Your task to perform on an android device: add a label to a message in the gmail app Image 0: 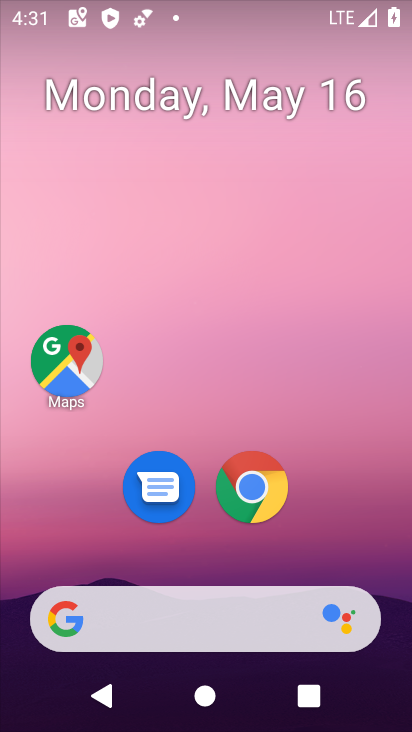
Step 0: drag from (396, 604) to (316, 106)
Your task to perform on an android device: add a label to a message in the gmail app Image 1: 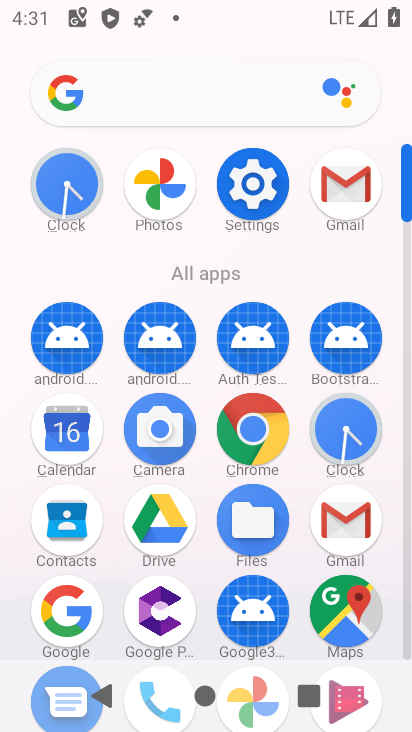
Step 1: click (408, 645)
Your task to perform on an android device: add a label to a message in the gmail app Image 2: 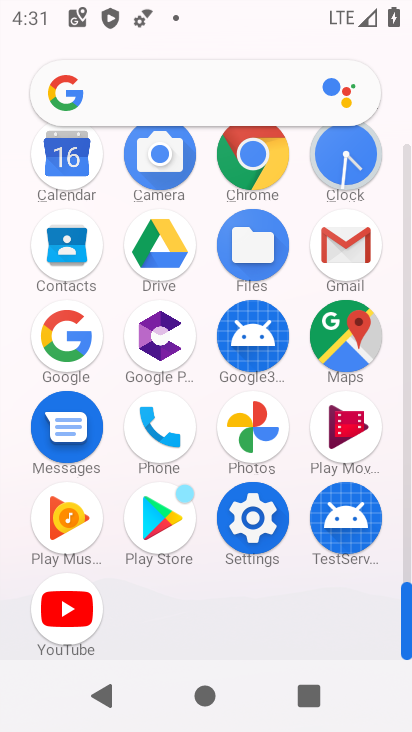
Step 2: click (344, 241)
Your task to perform on an android device: add a label to a message in the gmail app Image 3: 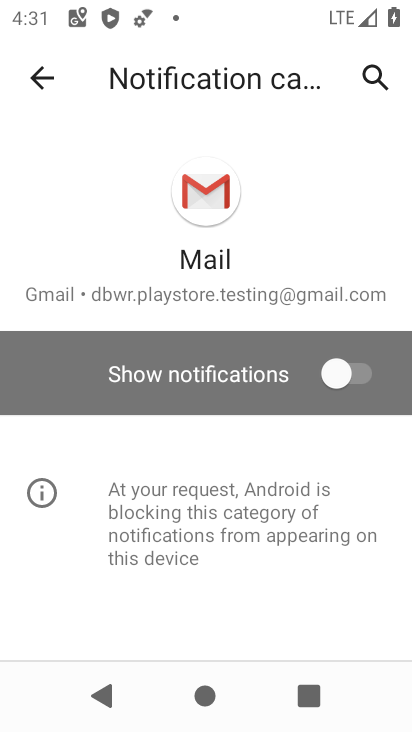
Step 3: press back button
Your task to perform on an android device: add a label to a message in the gmail app Image 4: 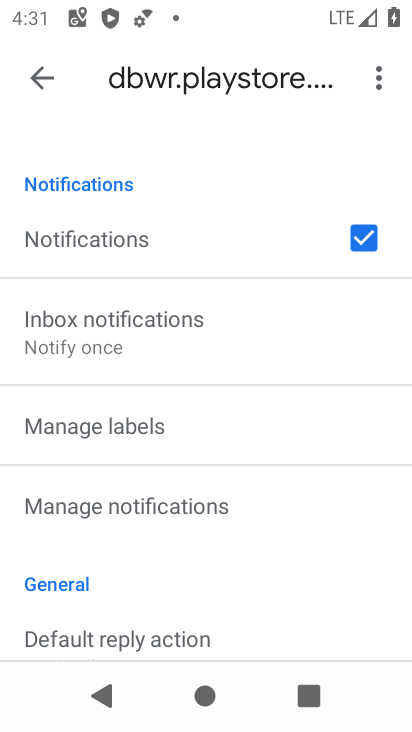
Step 4: press back button
Your task to perform on an android device: add a label to a message in the gmail app Image 5: 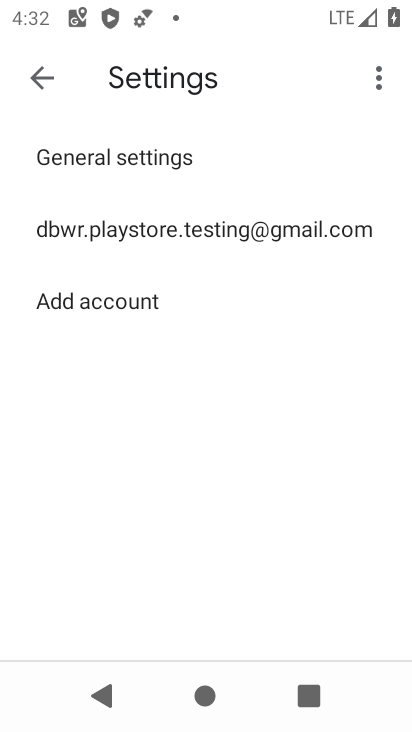
Step 5: press back button
Your task to perform on an android device: add a label to a message in the gmail app Image 6: 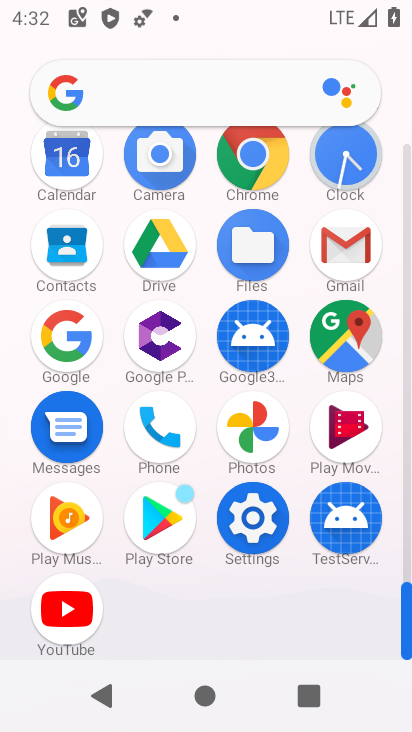
Step 6: click (345, 244)
Your task to perform on an android device: add a label to a message in the gmail app Image 7: 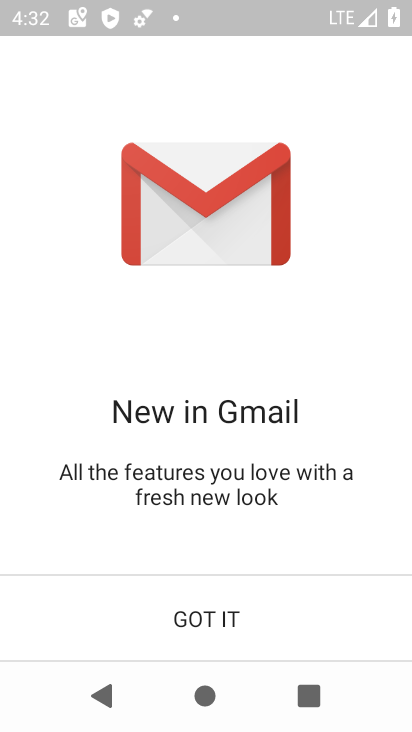
Step 7: click (208, 621)
Your task to perform on an android device: add a label to a message in the gmail app Image 8: 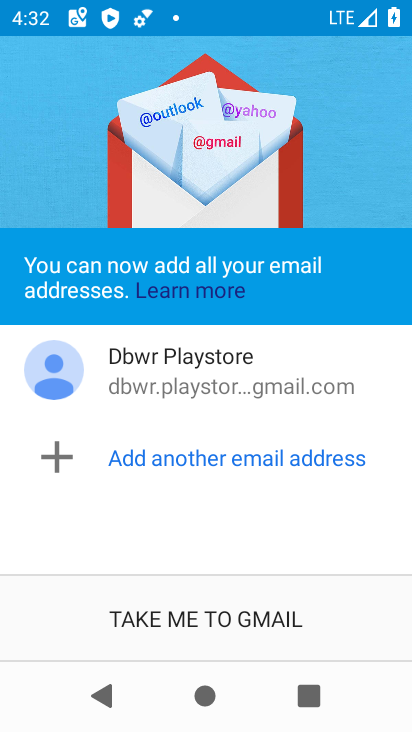
Step 8: click (203, 610)
Your task to perform on an android device: add a label to a message in the gmail app Image 9: 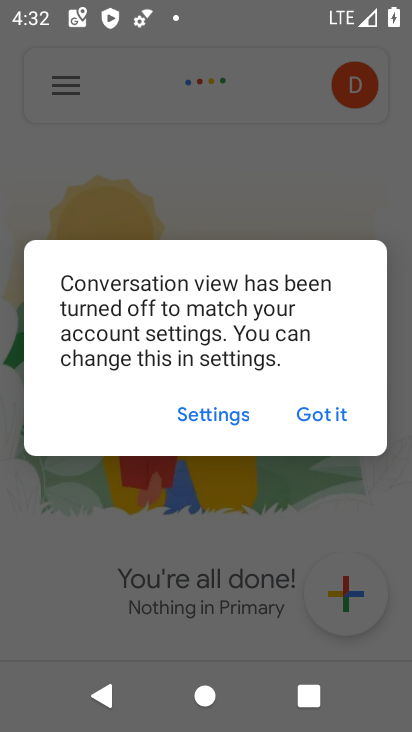
Step 9: click (310, 414)
Your task to perform on an android device: add a label to a message in the gmail app Image 10: 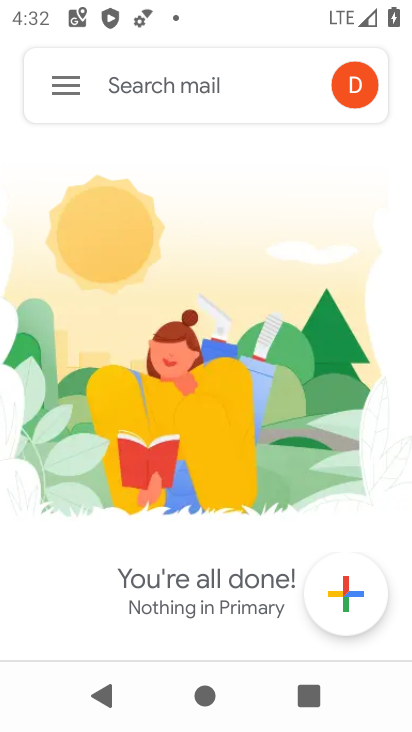
Step 10: click (62, 86)
Your task to perform on an android device: add a label to a message in the gmail app Image 11: 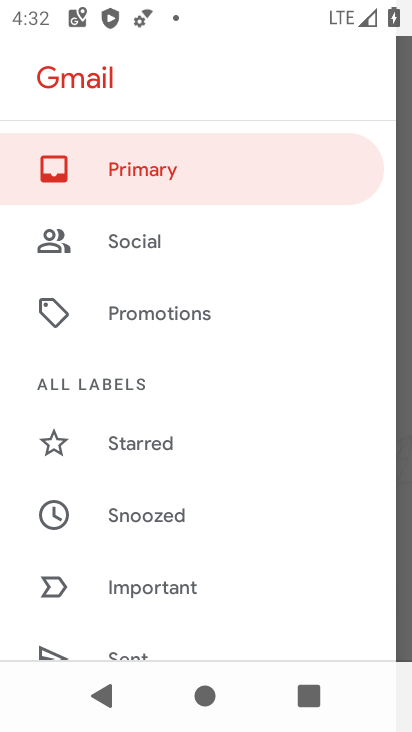
Step 11: click (152, 177)
Your task to perform on an android device: add a label to a message in the gmail app Image 12: 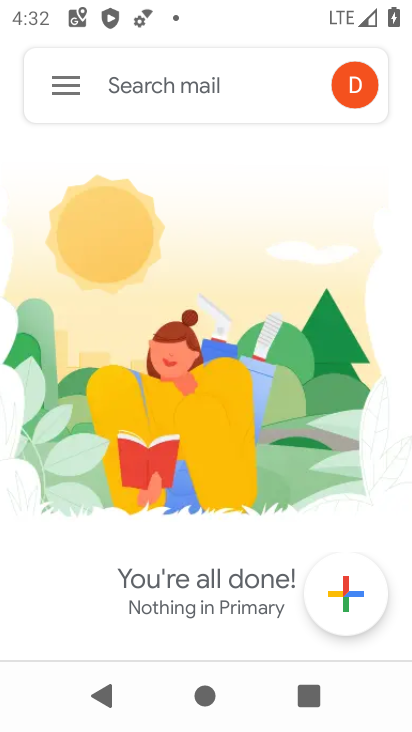
Step 12: task complete